Your task to perform on an android device: Do I have any events tomorrow? Image 0: 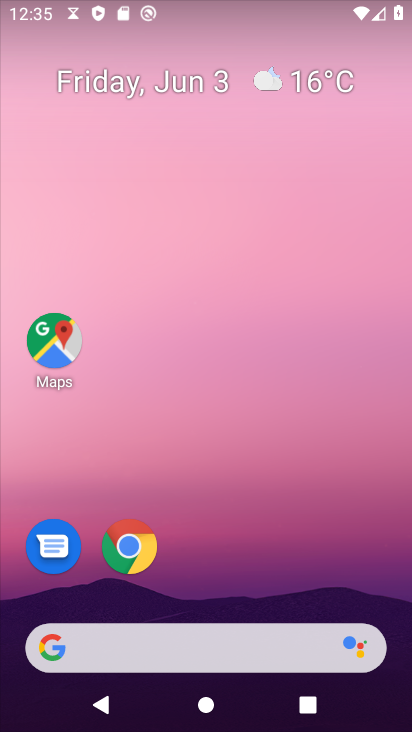
Step 0: drag from (246, 575) to (270, 73)
Your task to perform on an android device: Do I have any events tomorrow? Image 1: 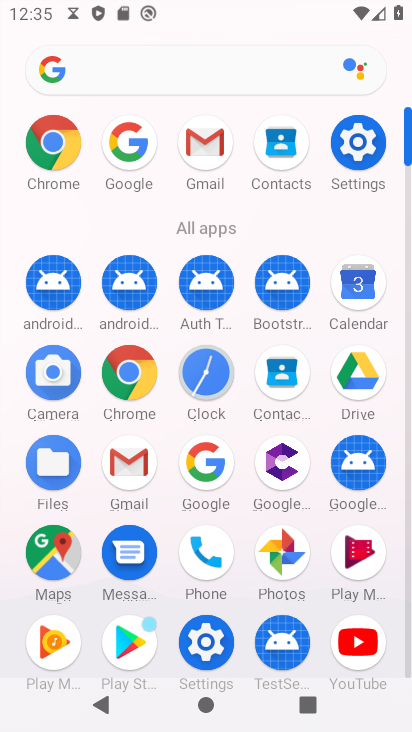
Step 1: click (343, 296)
Your task to perform on an android device: Do I have any events tomorrow? Image 2: 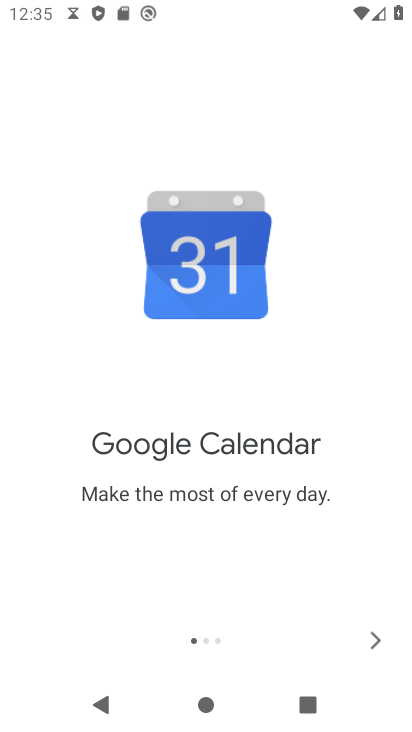
Step 2: click (366, 642)
Your task to perform on an android device: Do I have any events tomorrow? Image 3: 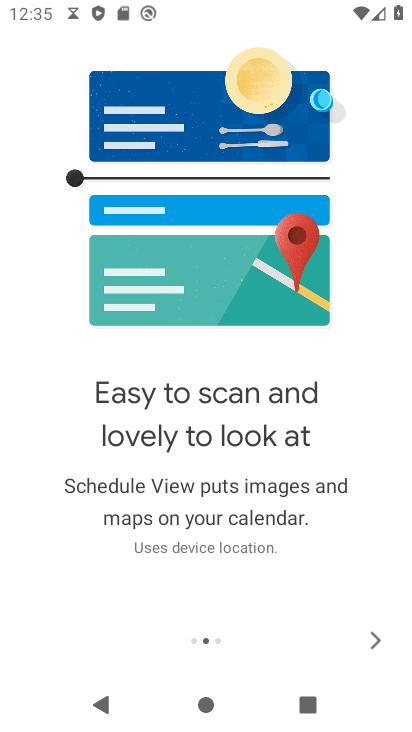
Step 3: click (366, 642)
Your task to perform on an android device: Do I have any events tomorrow? Image 4: 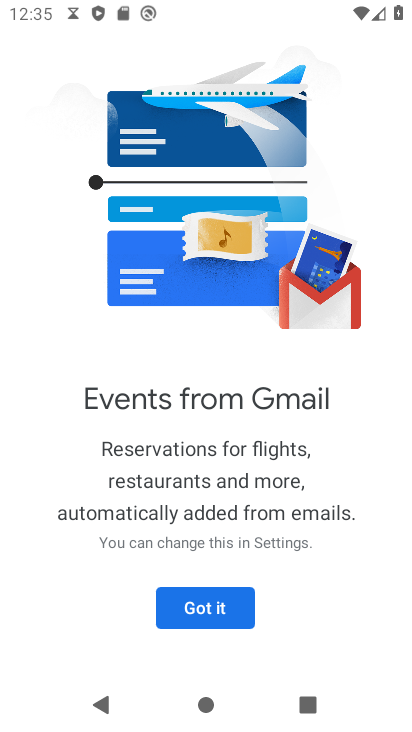
Step 4: click (184, 604)
Your task to perform on an android device: Do I have any events tomorrow? Image 5: 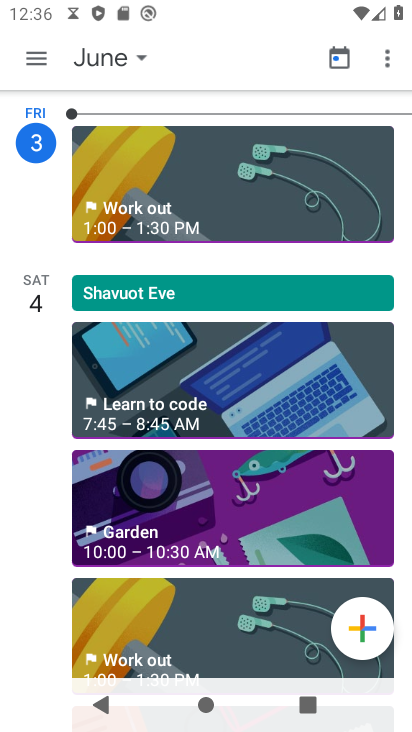
Step 5: click (136, 284)
Your task to perform on an android device: Do I have any events tomorrow? Image 6: 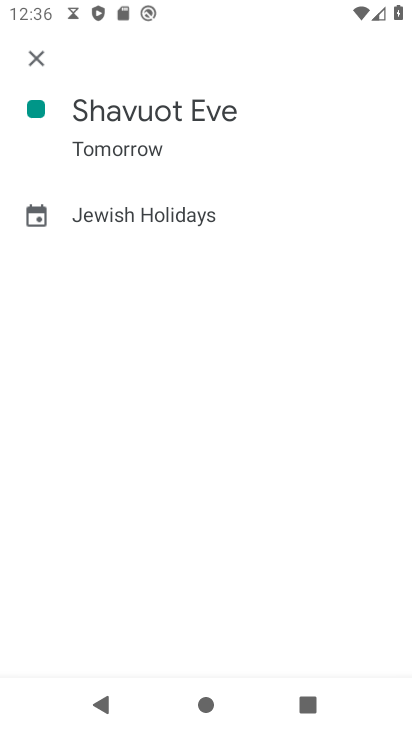
Step 6: task complete